Your task to perform on an android device: Set the phone to "Do not disturb". Image 0: 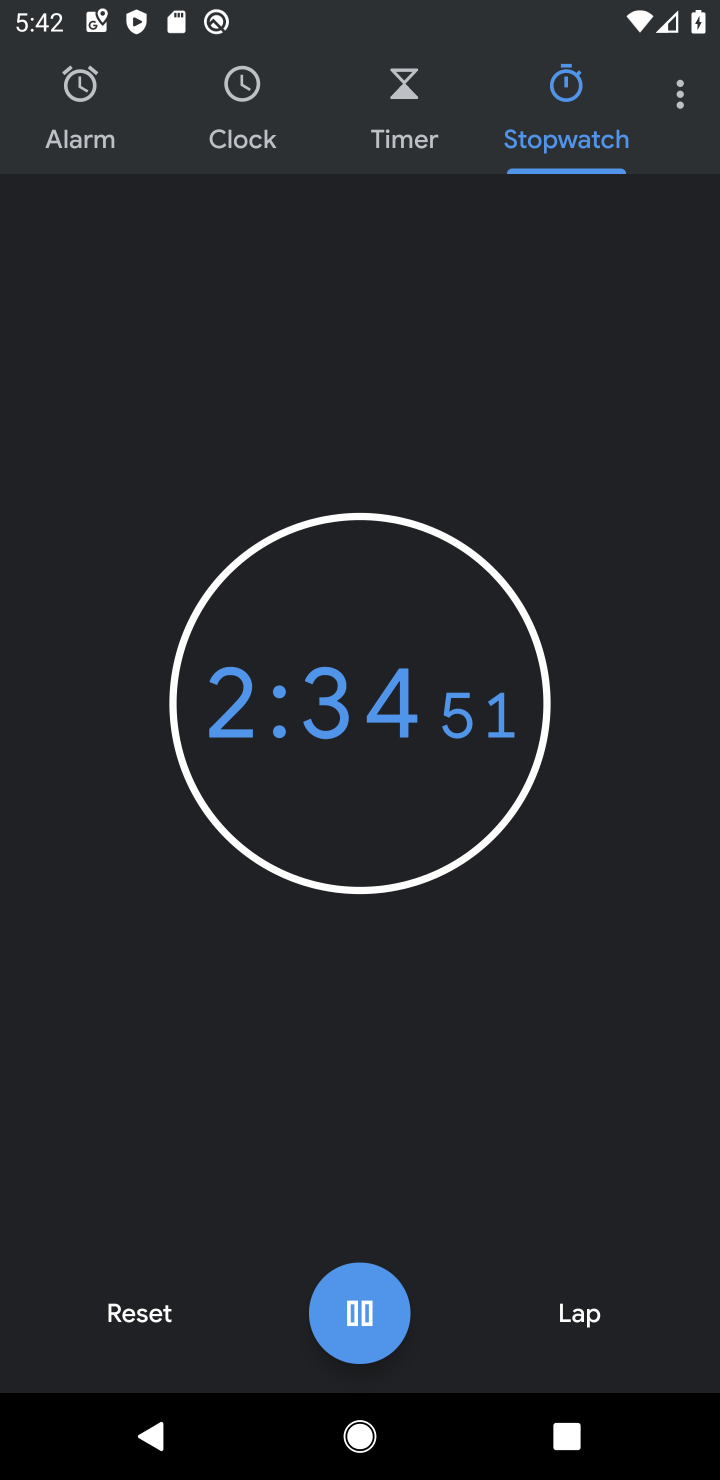
Step 0: press home button
Your task to perform on an android device: Set the phone to "Do not disturb". Image 1: 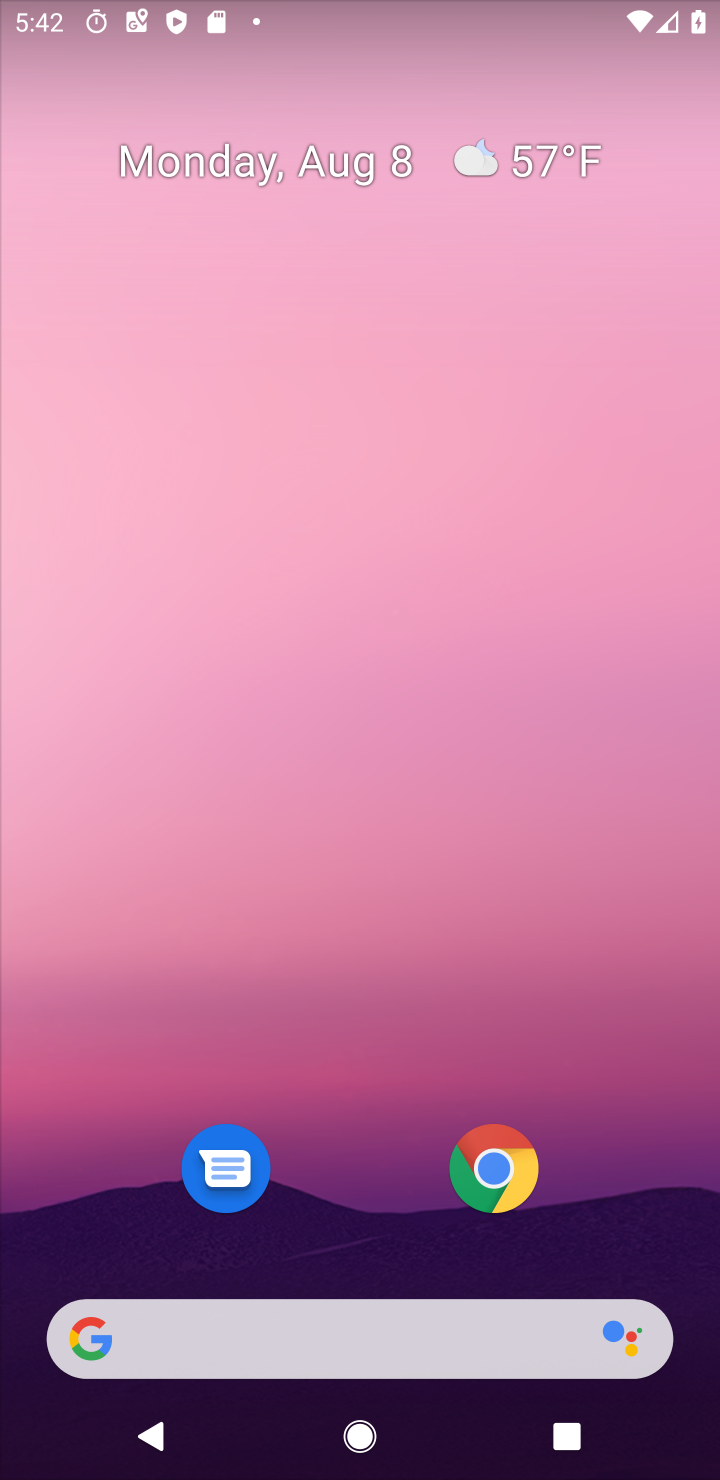
Step 1: drag from (349, 1355) to (363, 571)
Your task to perform on an android device: Set the phone to "Do not disturb". Image 2: 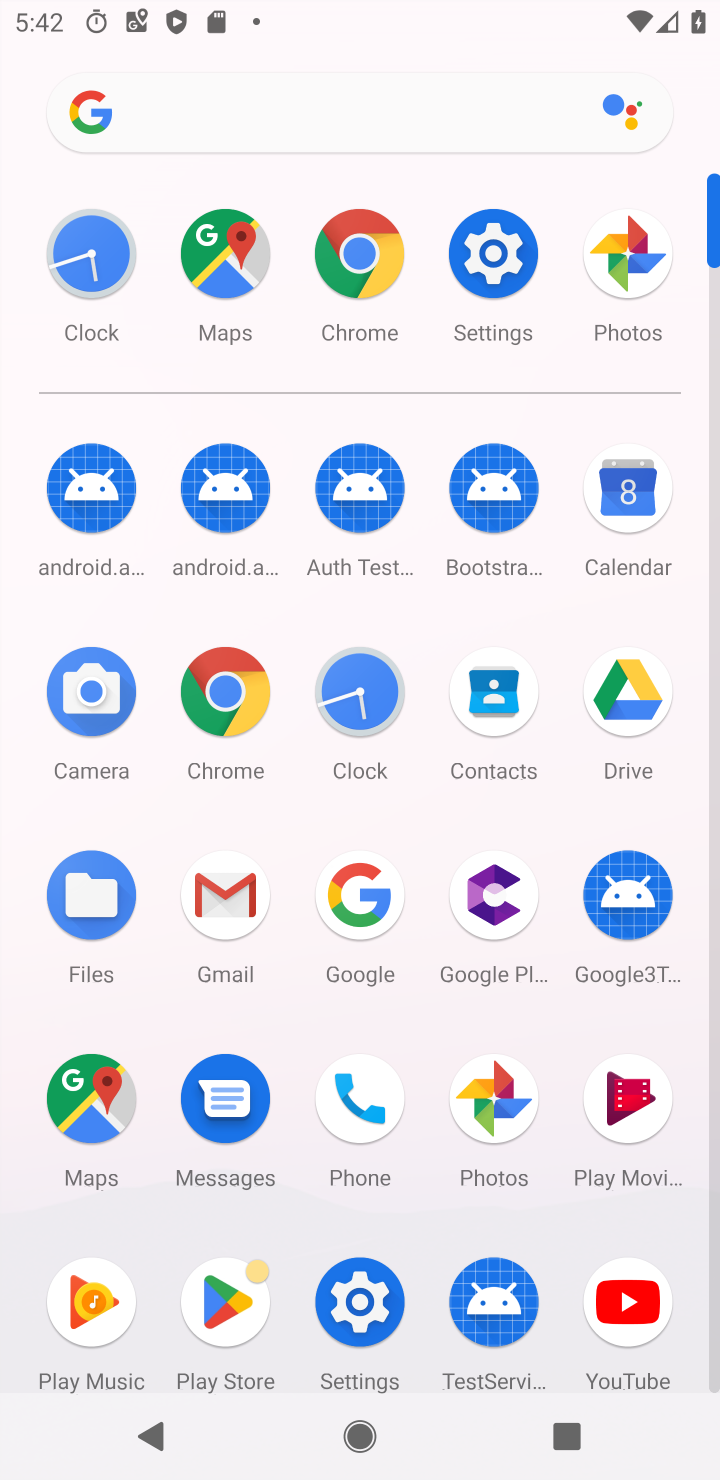
Step 2: click (478, 261)
Your task to perform on an android device: Set the phone to "Do not disturb". Image 3: 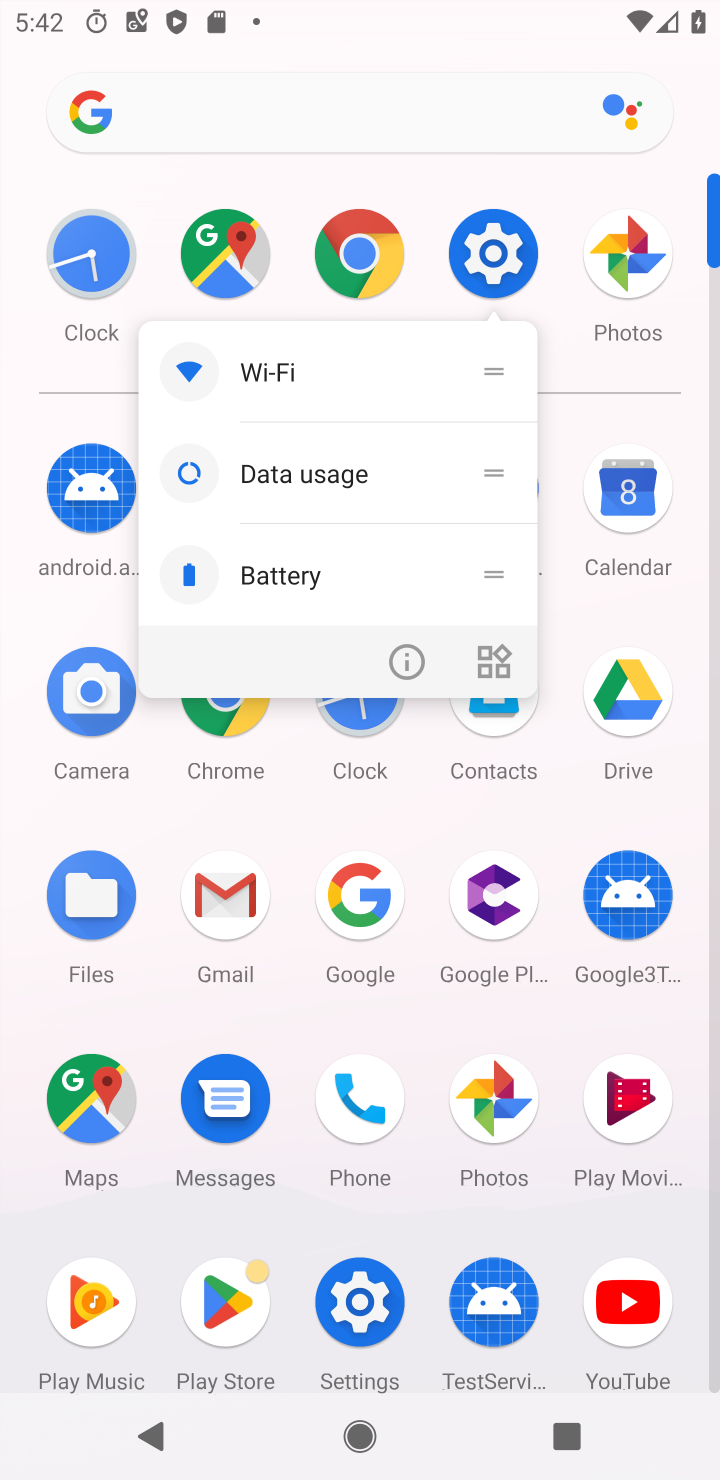
Step 3: click (484, 235)
Your task to perform on an android device: Set the phone to "Do not disturb". Image 4: 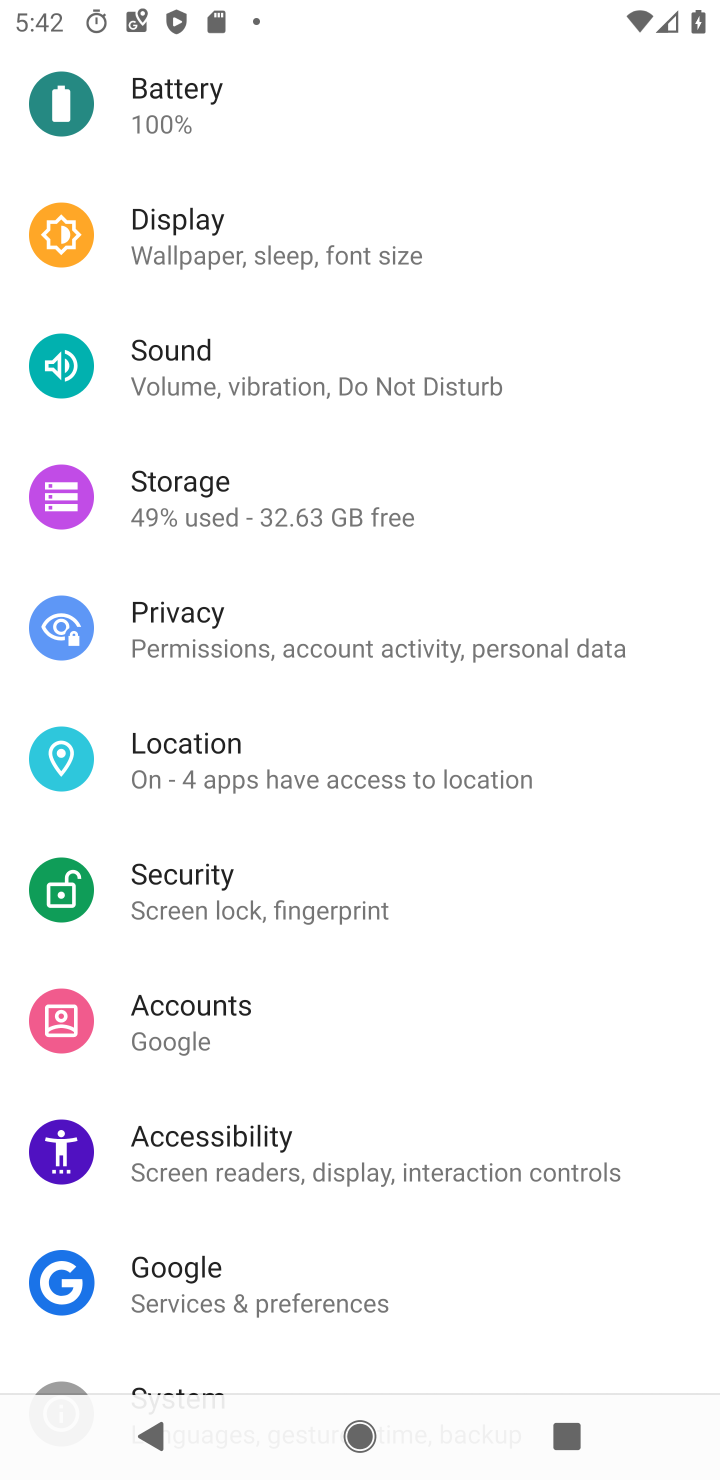
Step 4: click (213, 374)
Your task to perform on an android device: Set the phone to "Do not disturb". Image 5: 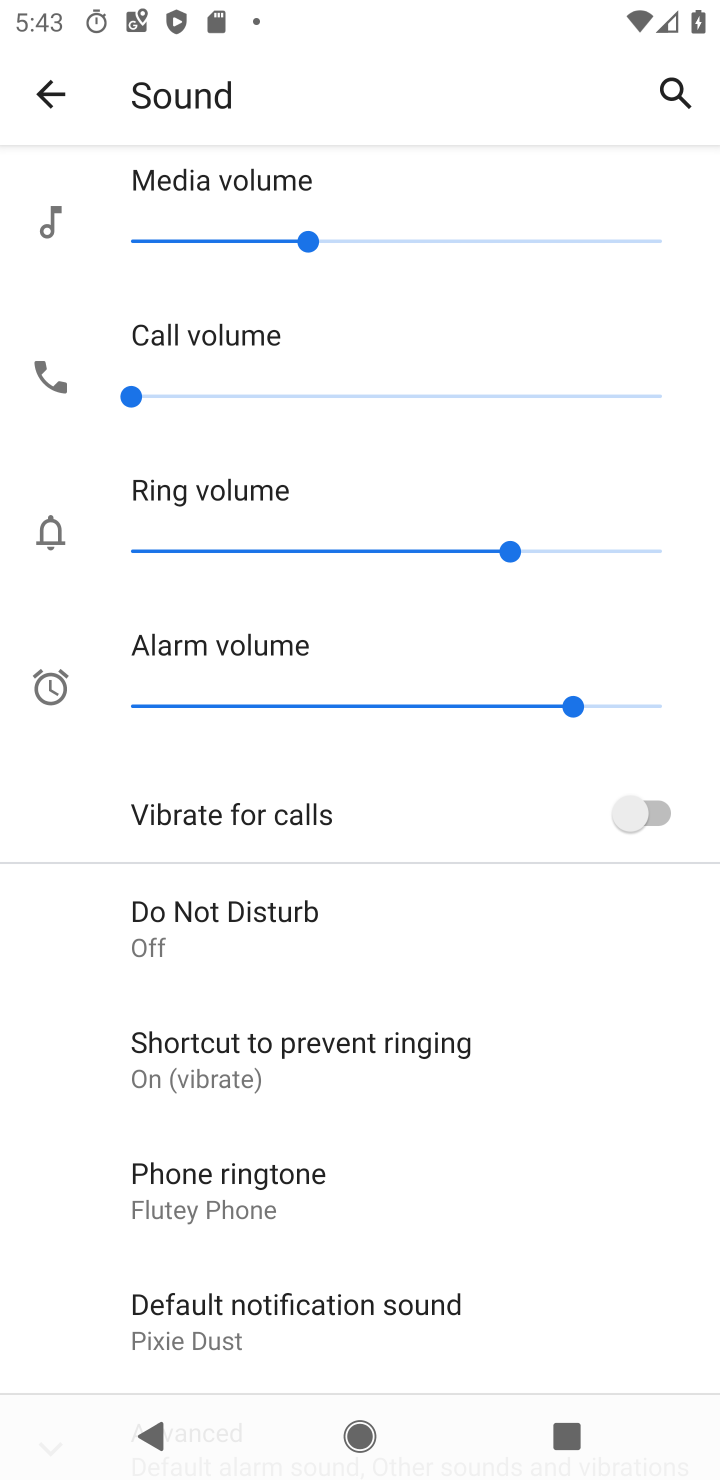
Step 5: click (297, 926)
Your task to perform on an android device: Set the phone to "Do not disturb". Image 6: 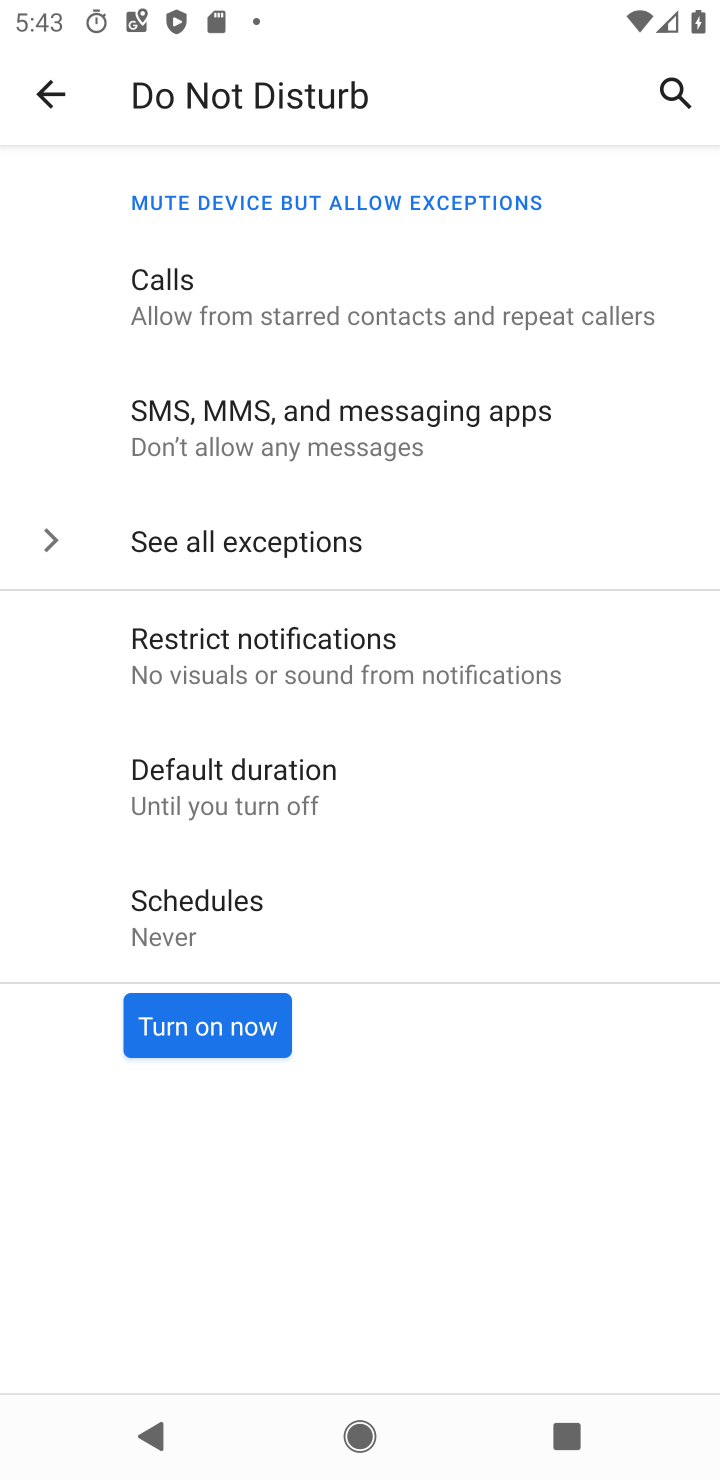
Step 6: click (232, 1029)
Your task to perform on an android device: Set the phone to "Do not disturb". Image 7: 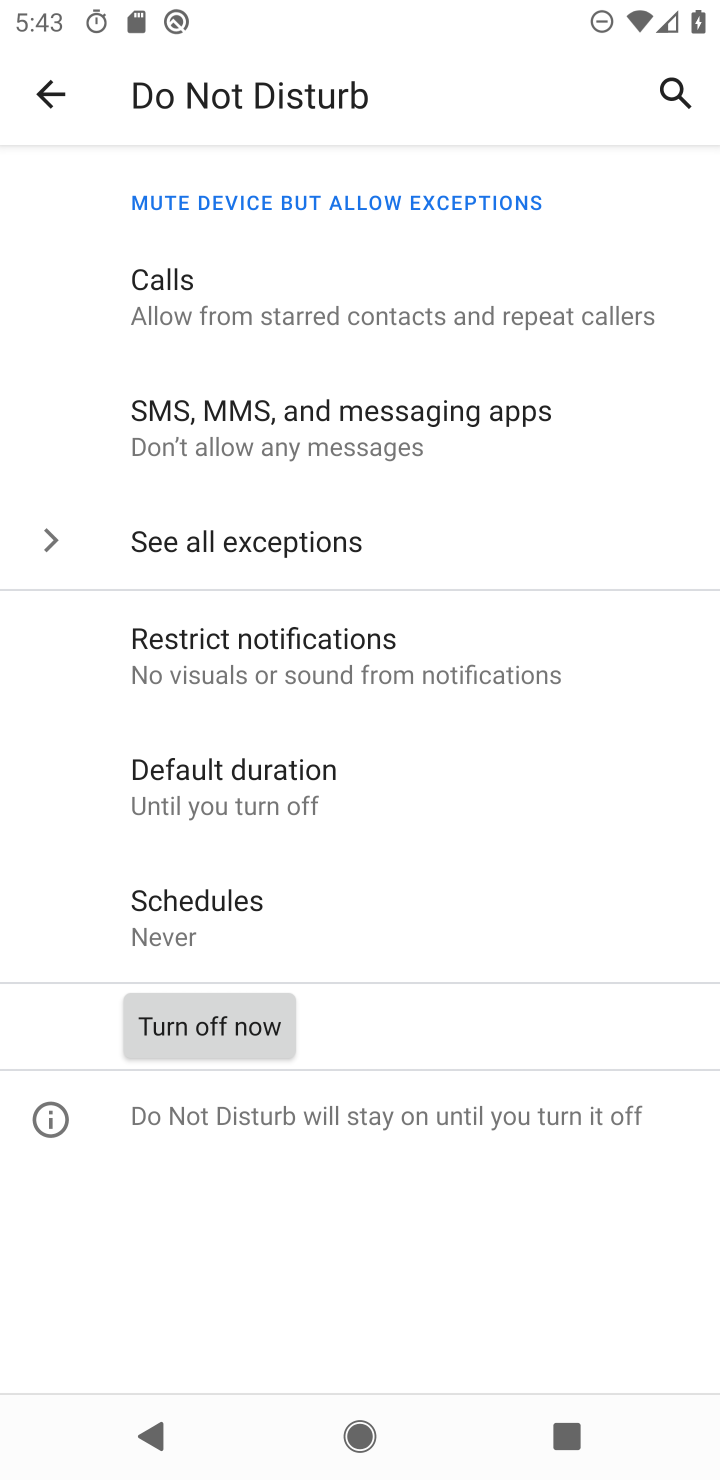
Step 7: task complete